Your task to perform on an android device: open wifi settings Image 0: 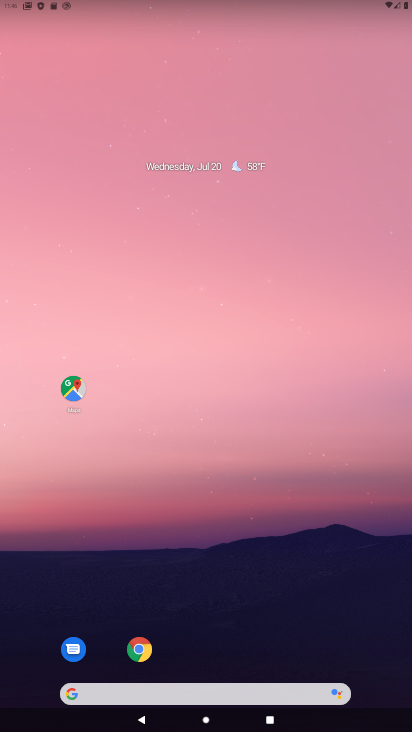
Step 0: drag from (187, 647) to (161, 54)
Your task to perform on an android device: open wifi settings Image 1: 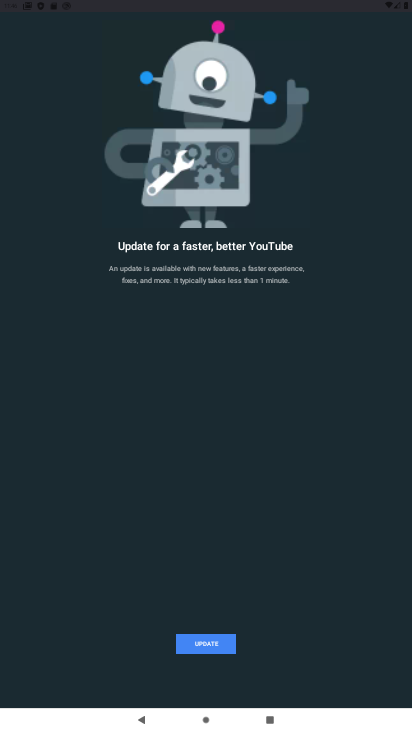
Step 1: press home button
Your task to perform on an android device: open wifi settings Image 2: 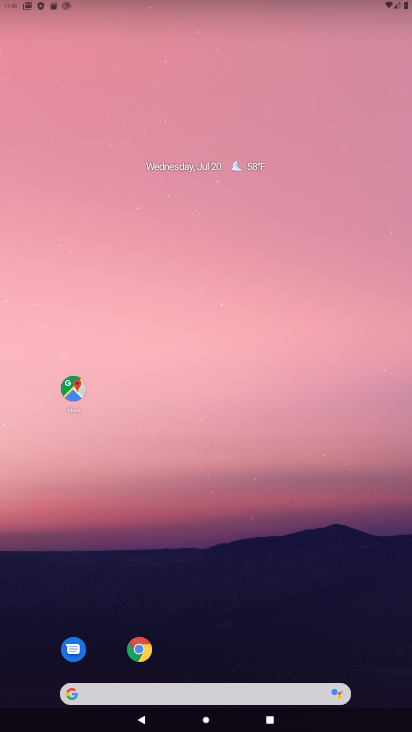
Step 2: drag from (202, 663) to (212, 115)
Your task to perform on an android device: open wifi settings Image 3: 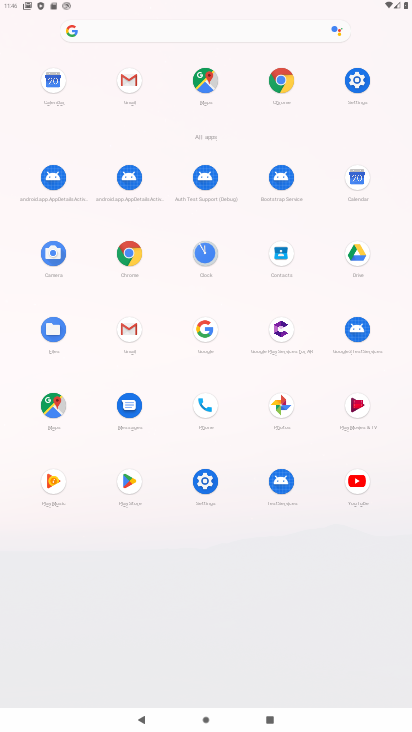
Step 3: click (354, 78)
Your task to perform on an android device: open wifi settings Image 4: 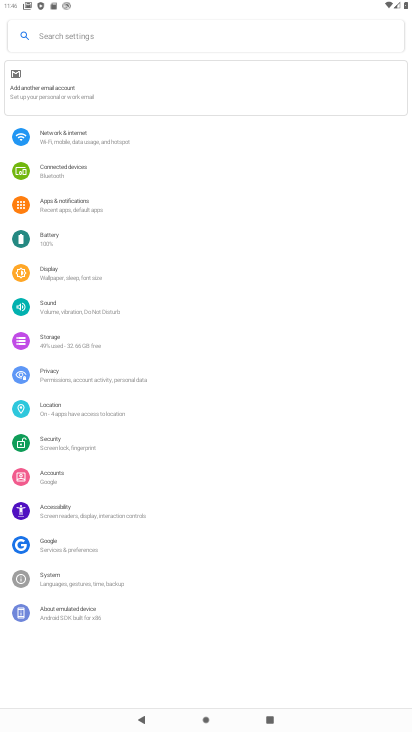
Step 4: click (85, 139)
Your task to perform on an android device: open wifi settings Image 5: 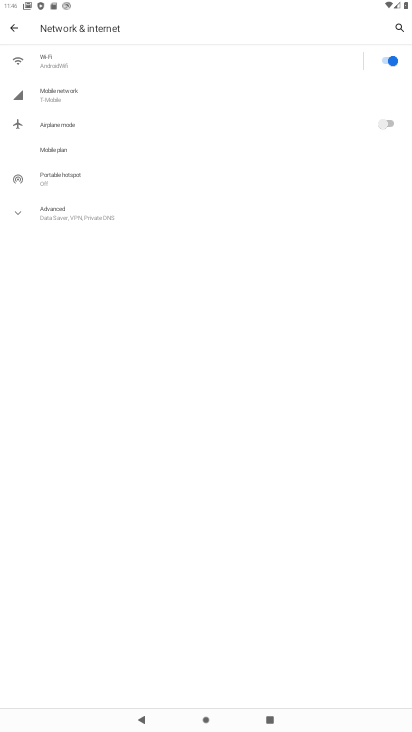
Step 5: click (109, 67)
Your task to perform on an android device: open wifi settings Image 6: 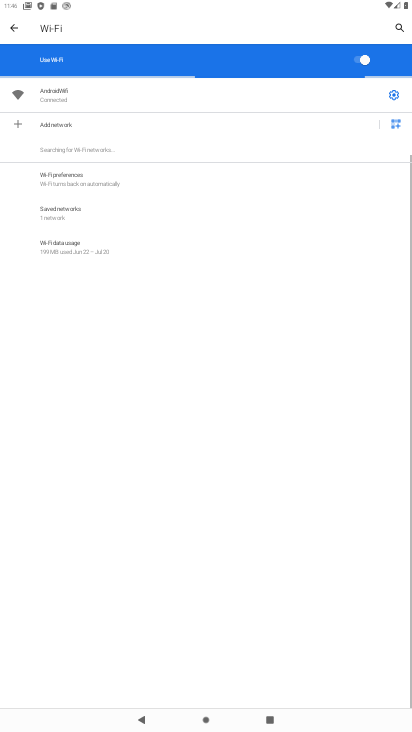
Step 6: click (134, 99)
Your task to perform on an android device: open wifi settings Image 7: 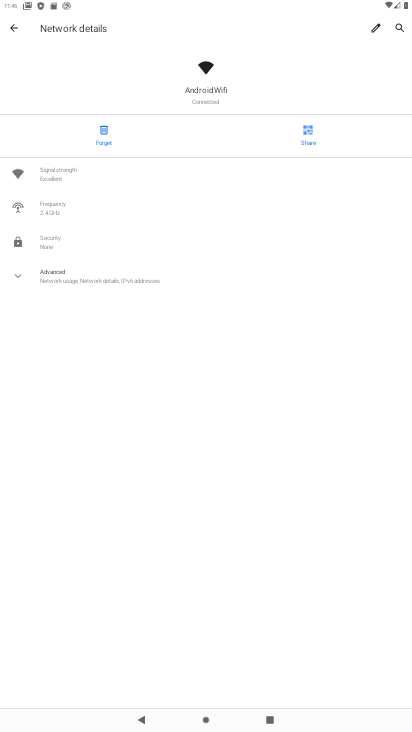
Step 7: task complete